Your task to perform on an android device: turn off data saver in the chrome app Image 0: 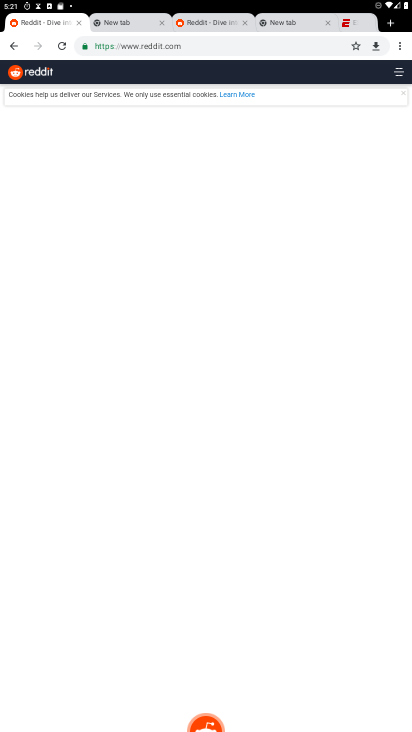
Step 0: press home button
Your task to perform on an android device: turn off data saver in the chrome app Image 1: 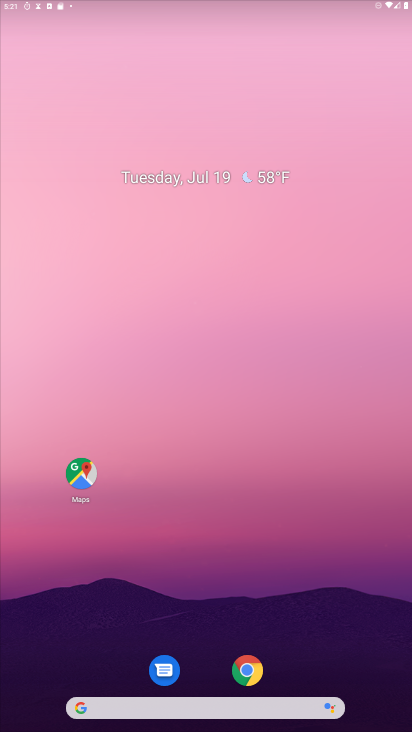
Step 1: drag from (251, 713) to (260, 36)
Your task to perform on an android device: turn off data saver in the chrome app Image 2: 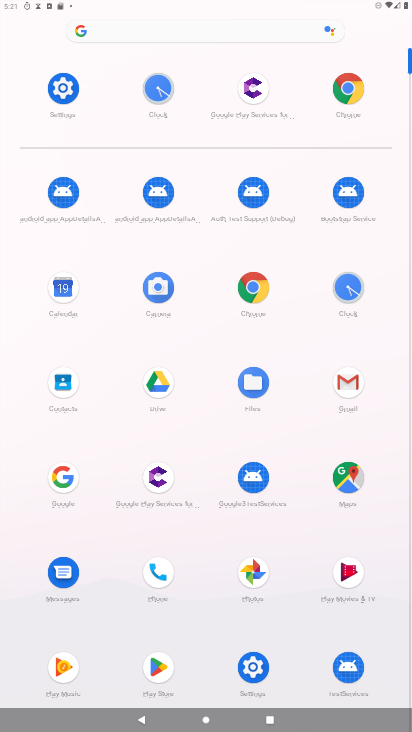
Step 2: click (257, 285)
Your task to perform on an android device: turn off data saver in the chrome app Image 3: 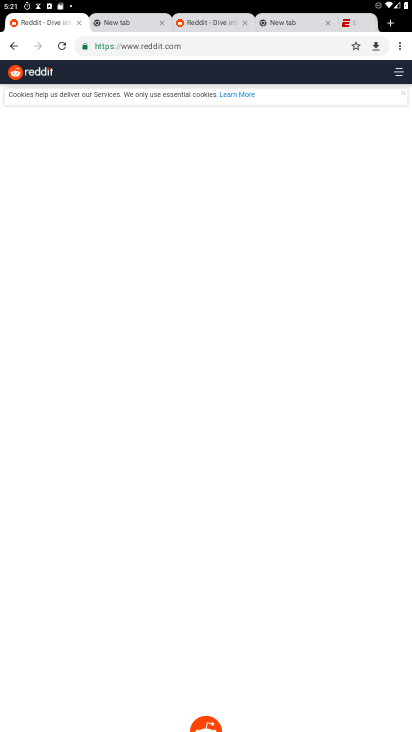
Step 3: drag from (402, 45) to (288, 315)
Your task to perform on an android device: turn off data saver in the chrome app Image 4: 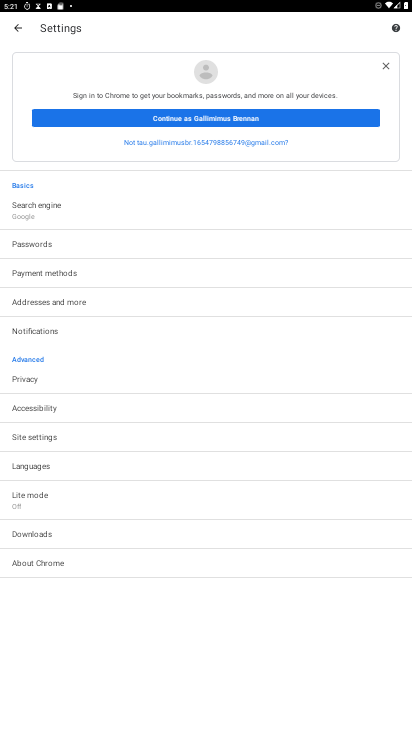
Step 4: click (72, 495)
Your task to perform on an android device: turn off data saver in the chrome app Image 5: 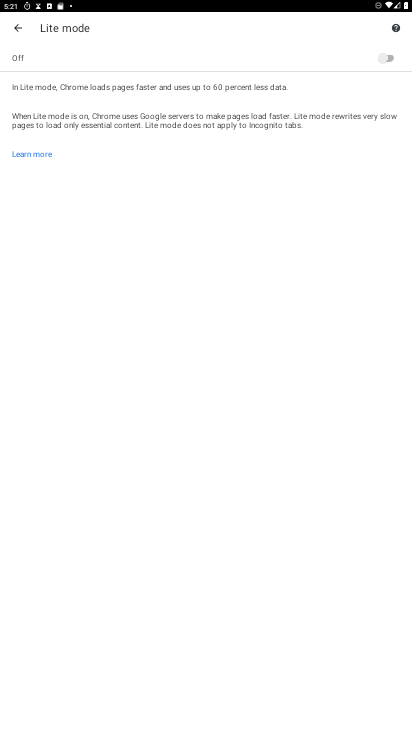
Step 5: task complete